Your task to perform on an android device: Go to settings Image 0: 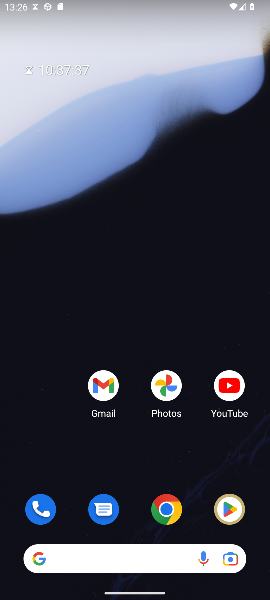
Step 0: press home button
Your task to perform on an android device: Go to settings Image 1: 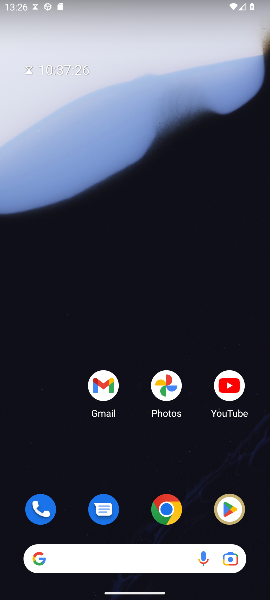
Step 1: drag from (138, 520) to (76, 55)
Your task to perform on an android device: Go to settings Image 2: 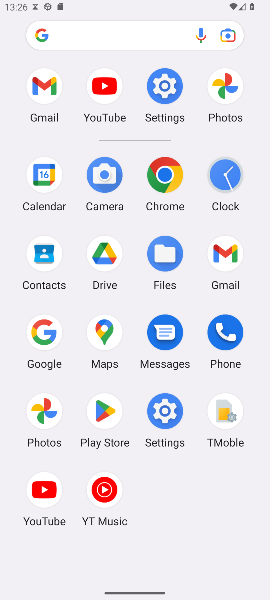
Step 2: click (164, 89)
Your task to perform on an android device: Go to settings Image 3: 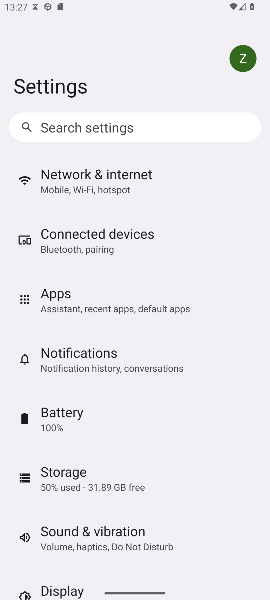
Step 3: task complete